Your task to perform on an android device: add a contact Image 0: 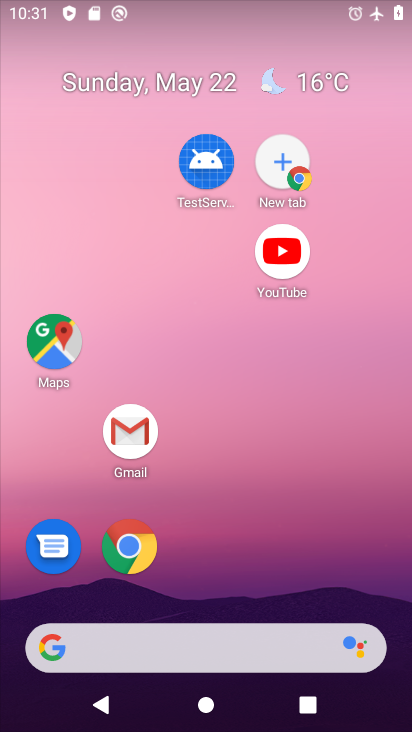
Step 0: drag from (285, 720) to (226, 75)
Your task to perform on an android device: add a contact Image 1: 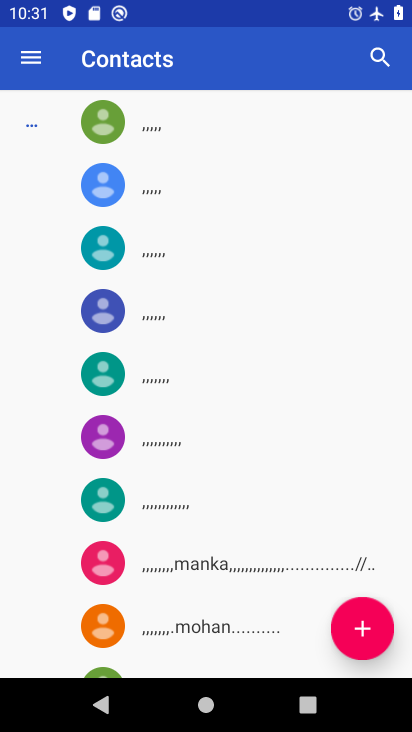
Step 1: click (343, 628)
Your task to perform on an android device: add a contact Image 2: 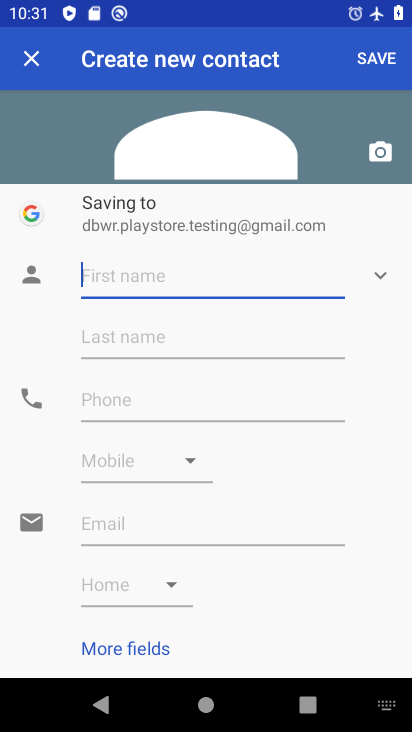
Step 2: type "bffjksehffjk"
Your task to perform on an android device: add a contact Image 3: 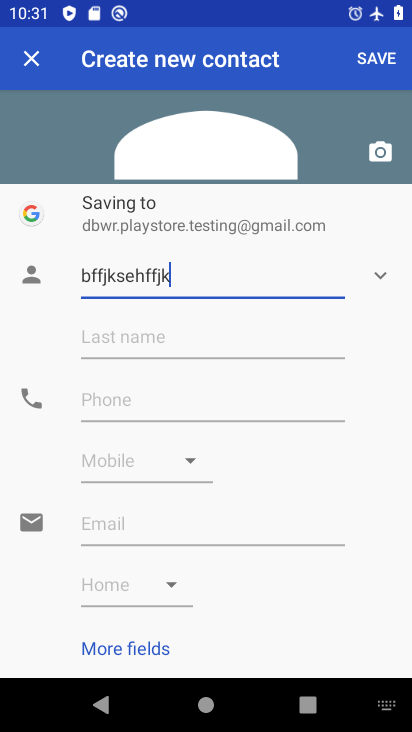
Step 3: click (102, 394)
Your task to perform on an android device: add a contact Image 4: 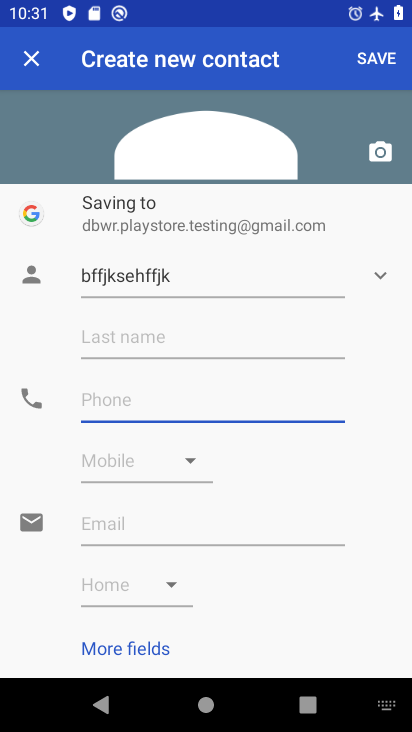
Step 4: type "6524897587490"
Your task to perform on an android device: add a contact Image 5: 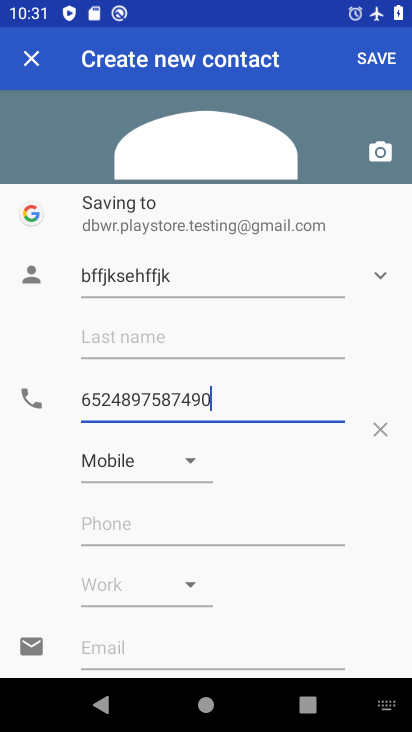
Step 5: click (375, 57)
Your task to perform on an android device: add a contact Image 6: 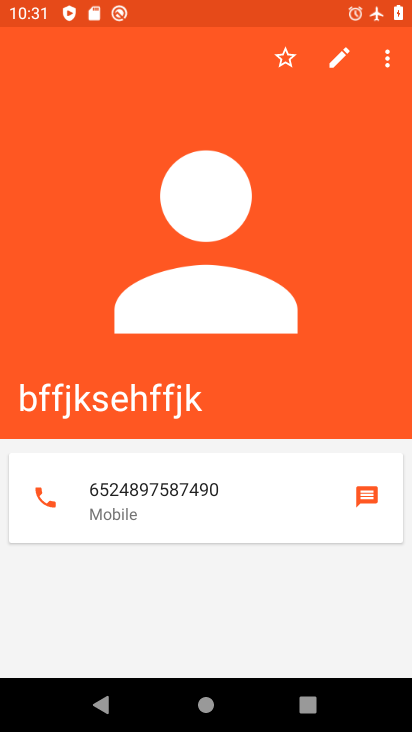
Step 6: task complete